Your task to perform on an android device: Open internet settings Image 0: 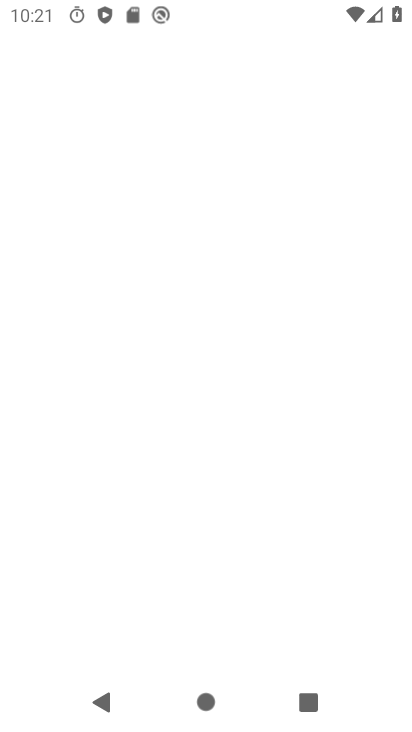
Step 0: press home button
Your task to perform on an android device: Open internet settings Image 1: 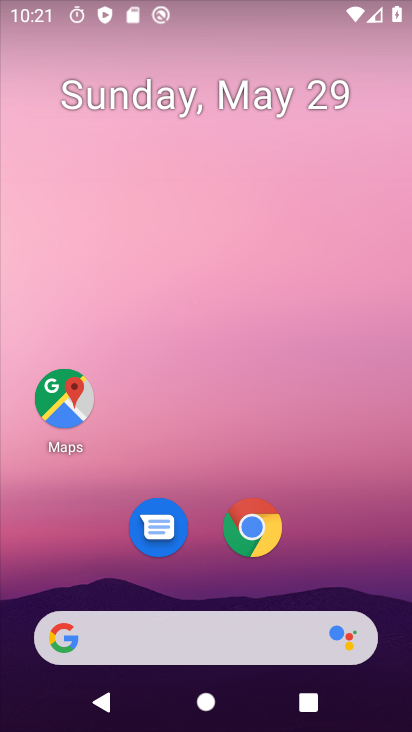
Step 1: drag from (338, 514) to (293, 144)
Your task to perform on an android device: Open internet settings Image 2: 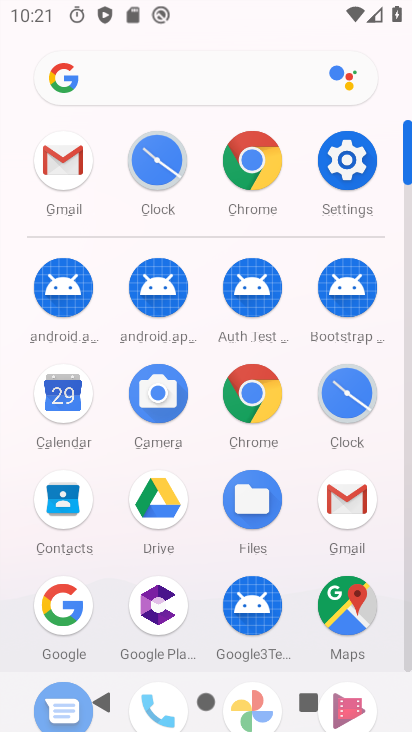
Step 2: click (363, 148)
Your task to perform on an android device: Open internet settings Image 3: 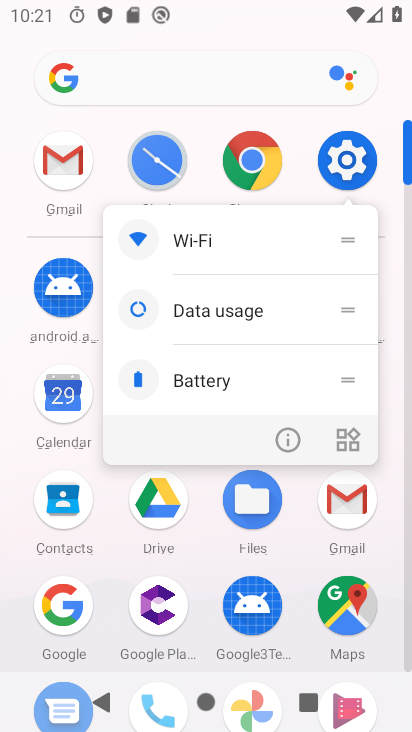
Step 3: click (362, 149)
Your task to perform on an android device: Open internet settings Image 4: 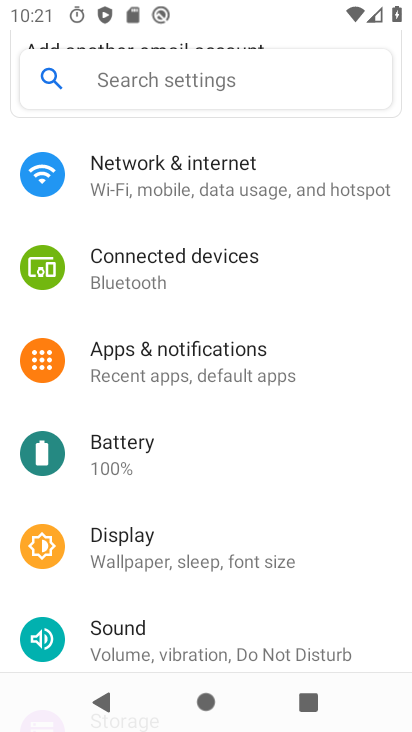
Step 4: click (222, 197)
Your task to perform on an android device: Open internet settings Image 5: 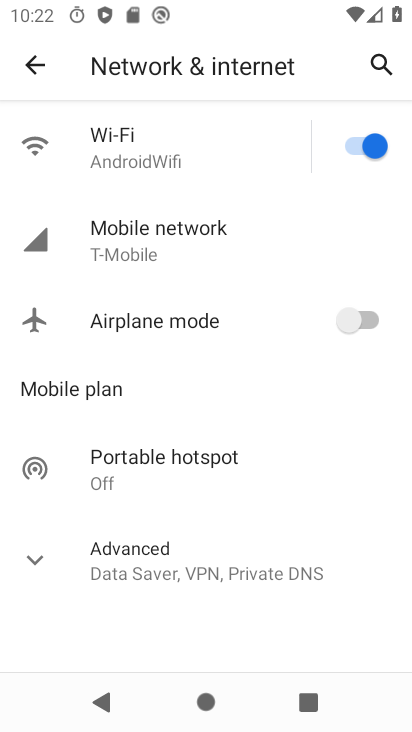
Step 5: task complete